Your task to perform on an android device: Open the Play Movies app and select the watchlist tab. Image 0: 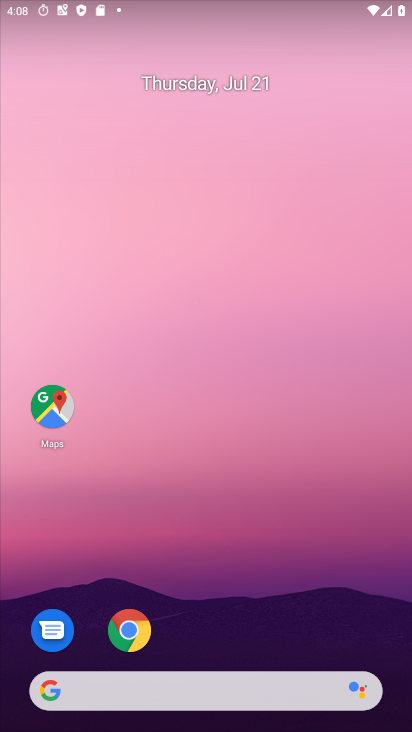
Step 0: drag from (163, 698) to (182, 28)
Your task to perform on an android device: Open the Play Movies app and select the watchlist tab. Image 1: 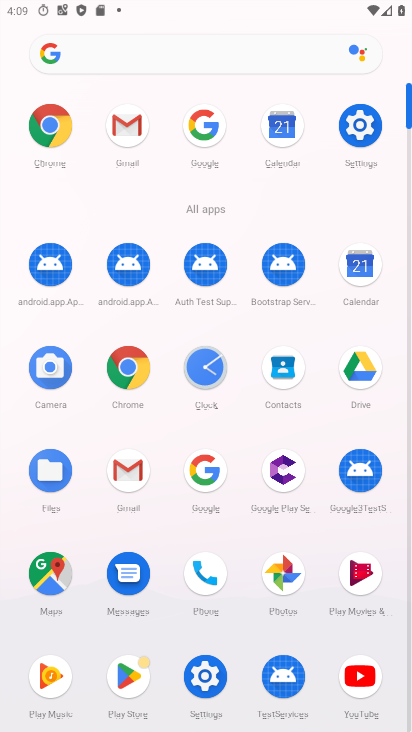
Step 1: click (363, 575)
Your task to perform on an android device: Open the Play Movies app and select the watchlist tab. Image 2: 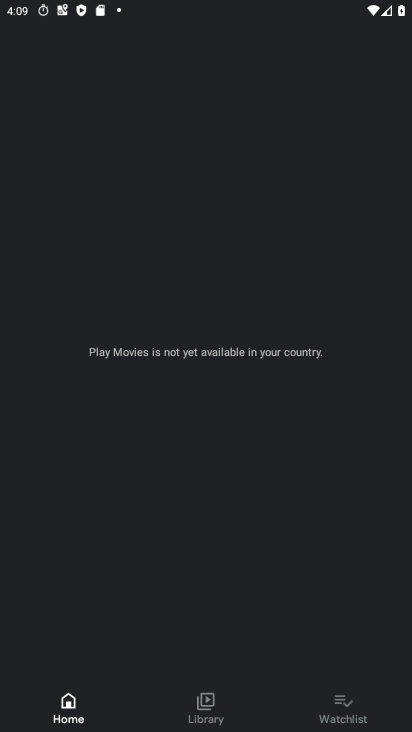
Step 2: click (346, 701)
Your task to perform on an android device: Open the Play Movies app and select the watchlist tab. Image 3: 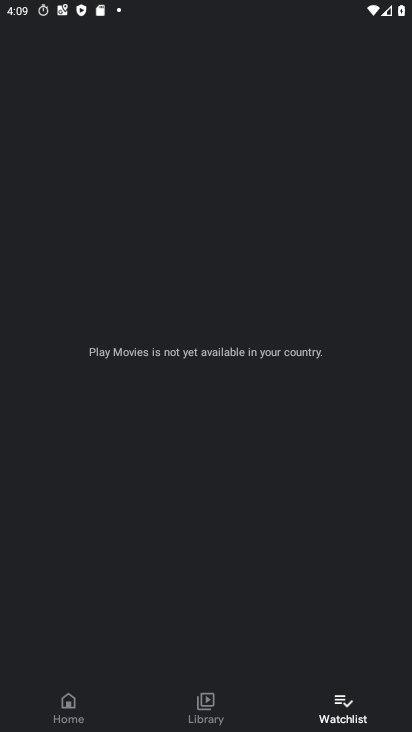
Step 3: task complete